Your task to perform on an android device: turn smart compose on in the gmail app Image 0: 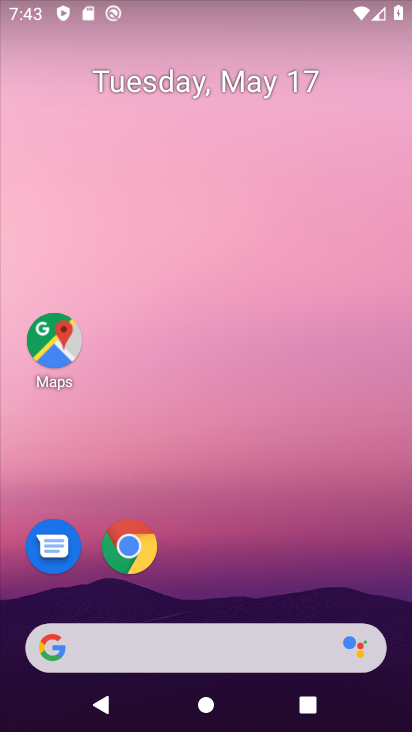
Step 0: drag from (244, 583) to (190, 142)
Your task to perform on an android device: turn smart compose on in the gmail app Image 1: 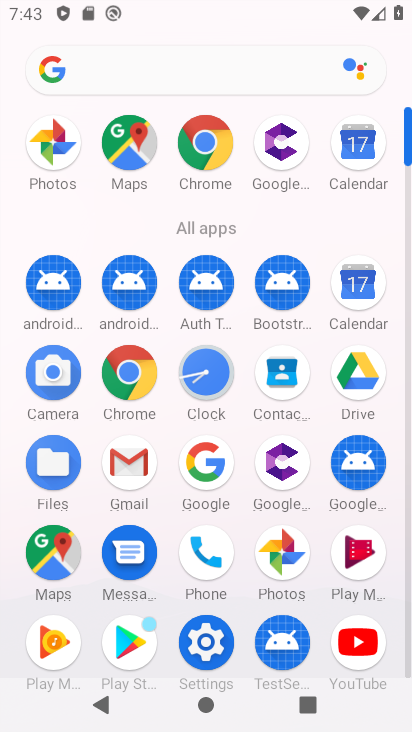
Step 1: click (127, 460)
Your task to perform on an android device: turn smart compose on in the gmail app Image 2: 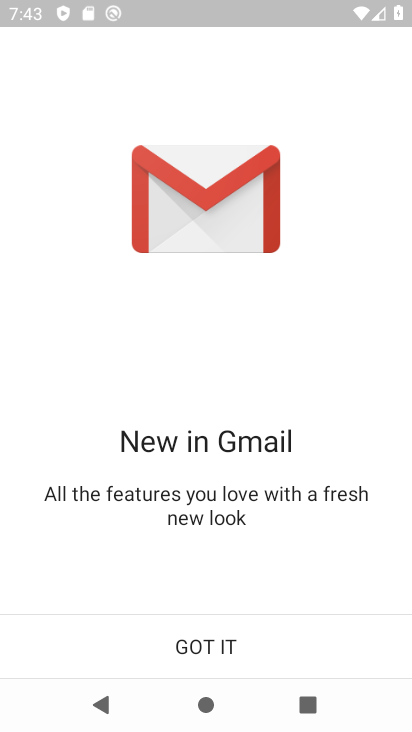
Step 2: click (217, 647)
Your task to perform on an android device: turn smart compose on in the gmail app Image 3: 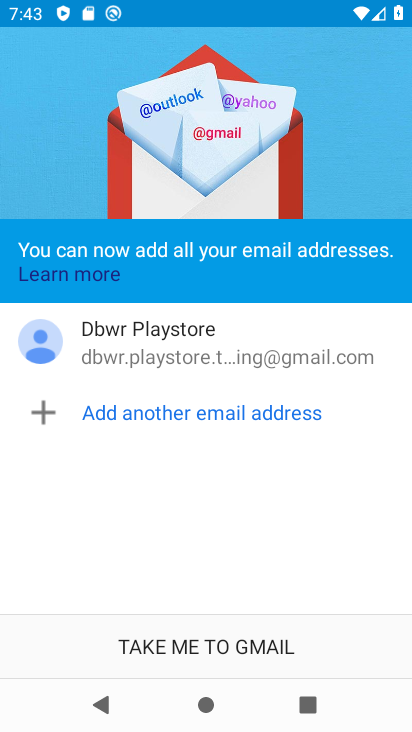
Step 3: click (217, 647)
Your task to perform on an android device: turn smart compose on in the gmail app Image 4: 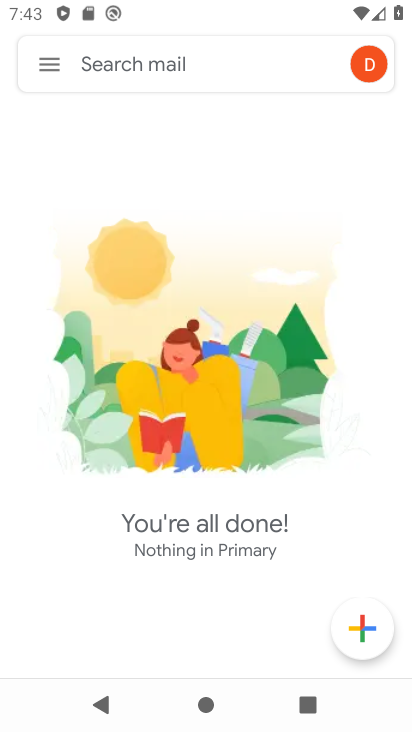
Step 4: click (55, 64)
Your task to perform on an android device: turn smart compose on in the gmail app Image 5: 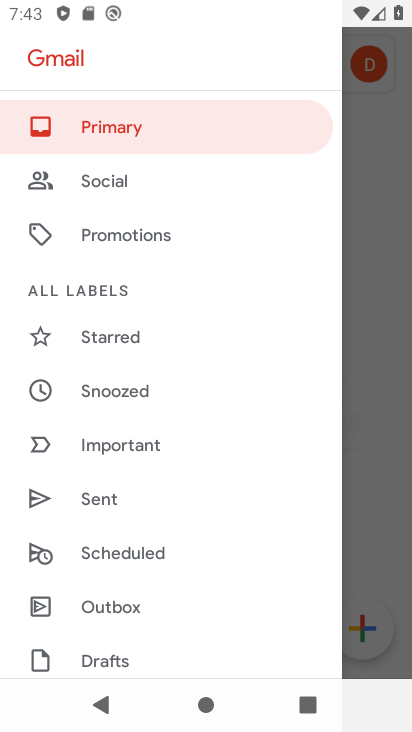
Step 5: drag from (130, 490) to (137, 396)
Your task to perform on an android device: turn smart compose on in the gmail app Image 6: 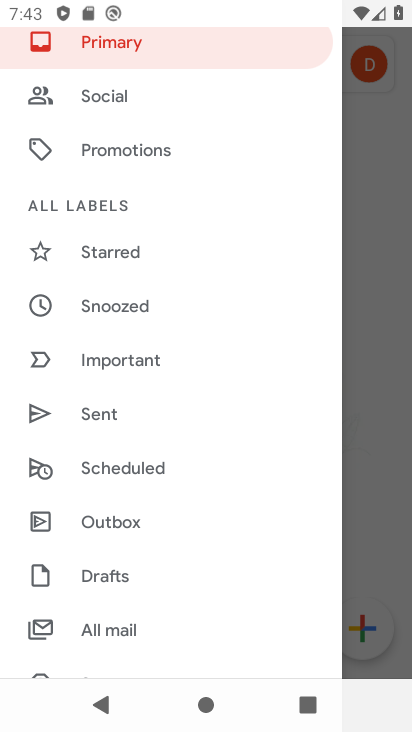
Step 6: drag from (114, 542) to (136, 464)
Your task to perform on an android device: turn smart compose on in the gmail app Image 7: 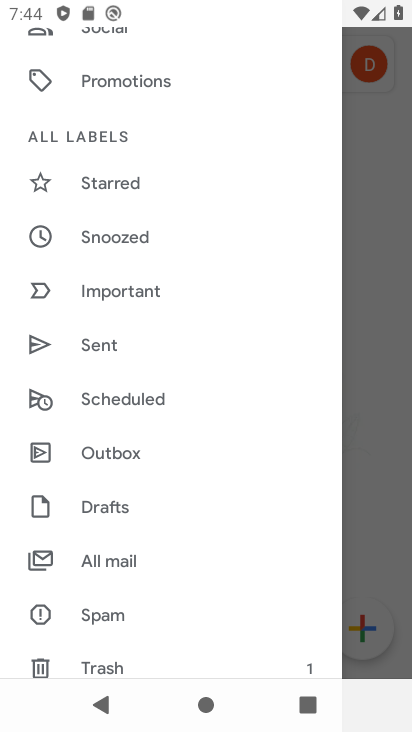
Step 7: drag from (112, 578) to (139, 499)
Your task to perform on an android device: turn smart compose on in the gmail app Image 8: 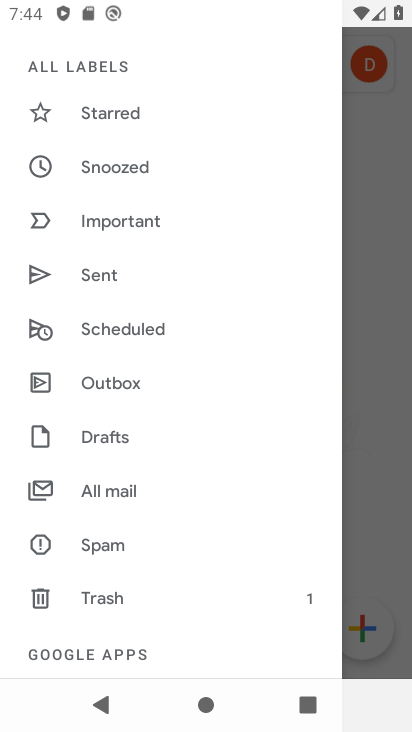
Step 8: drag from (114, 618) to (147, 531)
Your task to perform on an android device: turn smart compose on in the gmail app Image 9: 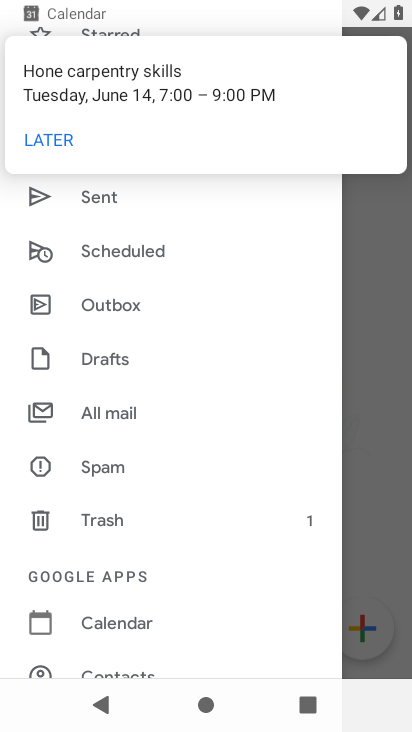
Step 9: drag from (102, 636) to (167, 542)
Your task to perform on an android device: turn smart compose on in the gmail app Image 10: 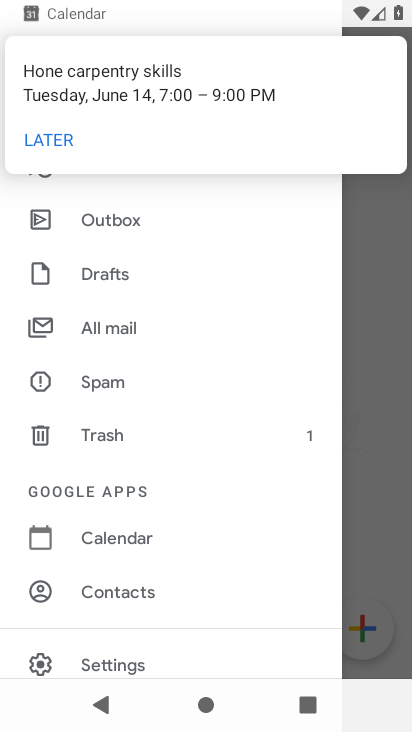
Step 10: drag from (126, 641) to (156, 570)
Your task to perform on an android device: turn smart compose on in the gmail app Image 11: 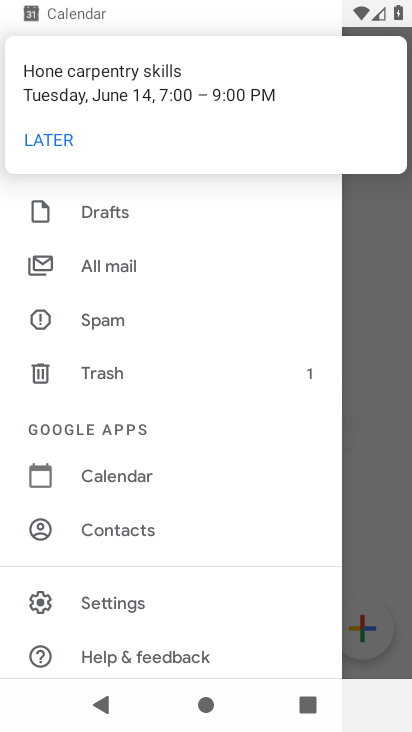
Step 11: click (119, 604)
Your task to perform on an android device: turn smart compose on in the gmail app Image 12: 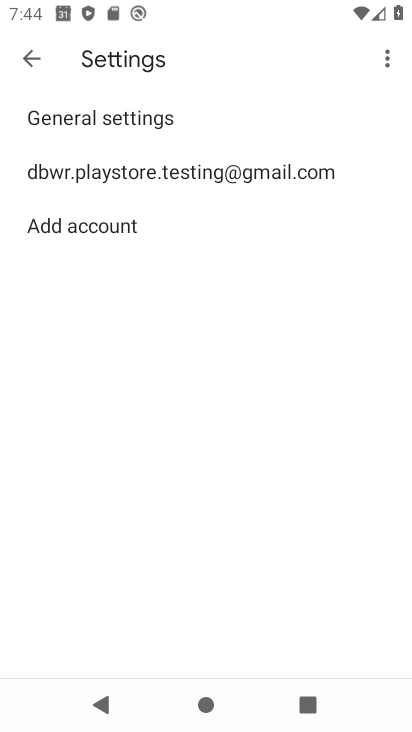
Step 12: click (124, 166)
Your task to perform on an android device: turn smart compose on in the gmail app Image 13: 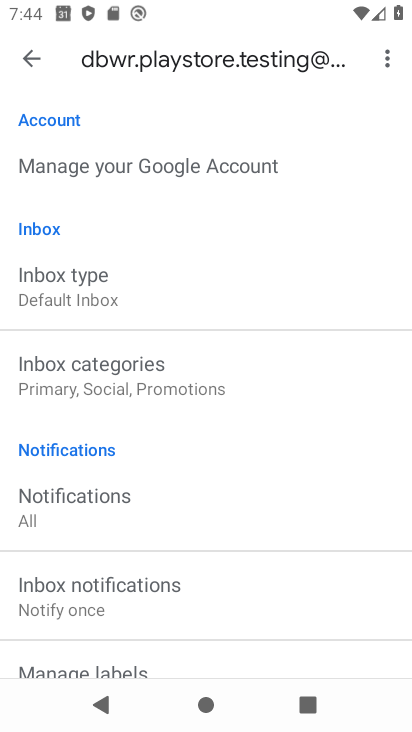
Step 13: task complete